Your task to perform on an android device: open app "Skype" (install if not already installed) Image 0: 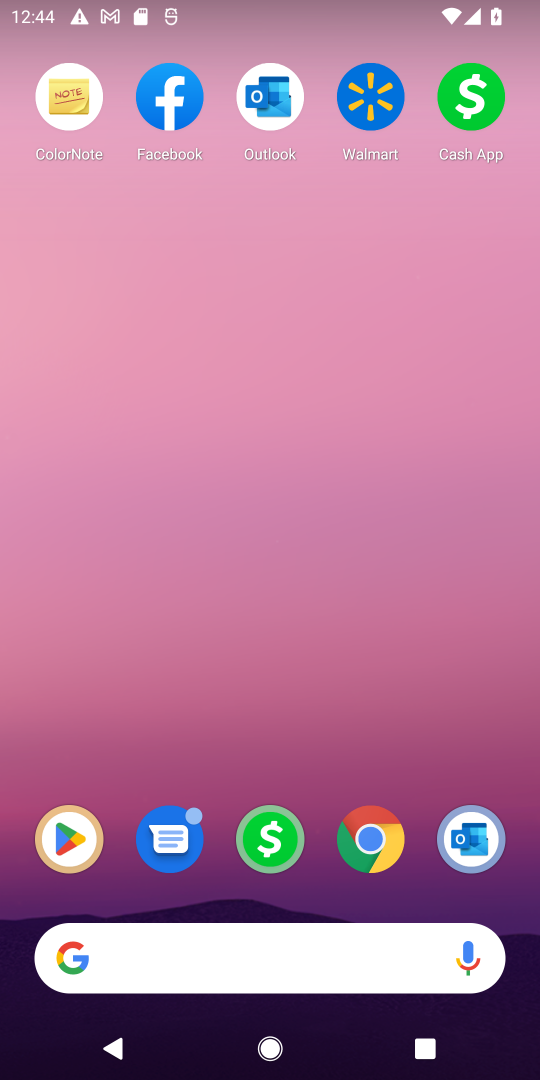
Step 0: click (71, 844)
Your task to perform on an android device: open app "Skype" (install if not already installed) Image 1: 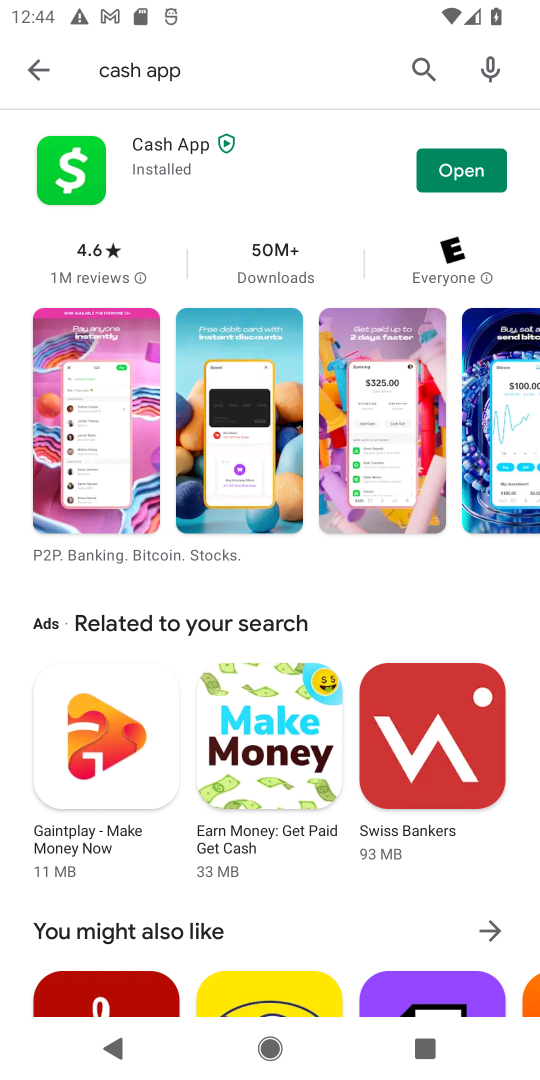
Step 1: click (422, 62)
Your task to perform on an android device: open app "Skype" (install if not already installed) Image 2: 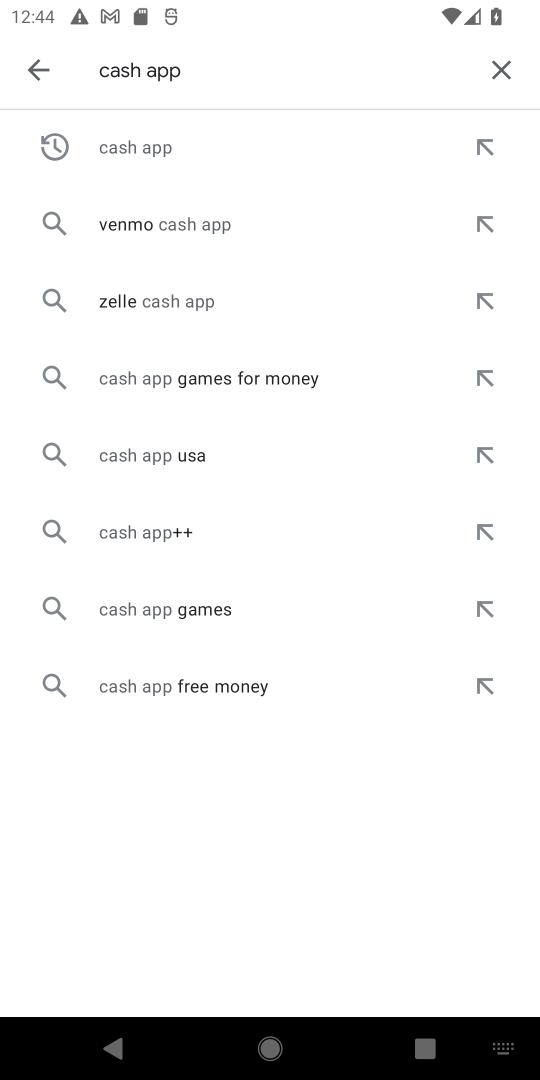
Step 2: click (518, 70)
Your task to perform on an android device: open app "Skype" (install if not already installed) Image 3: 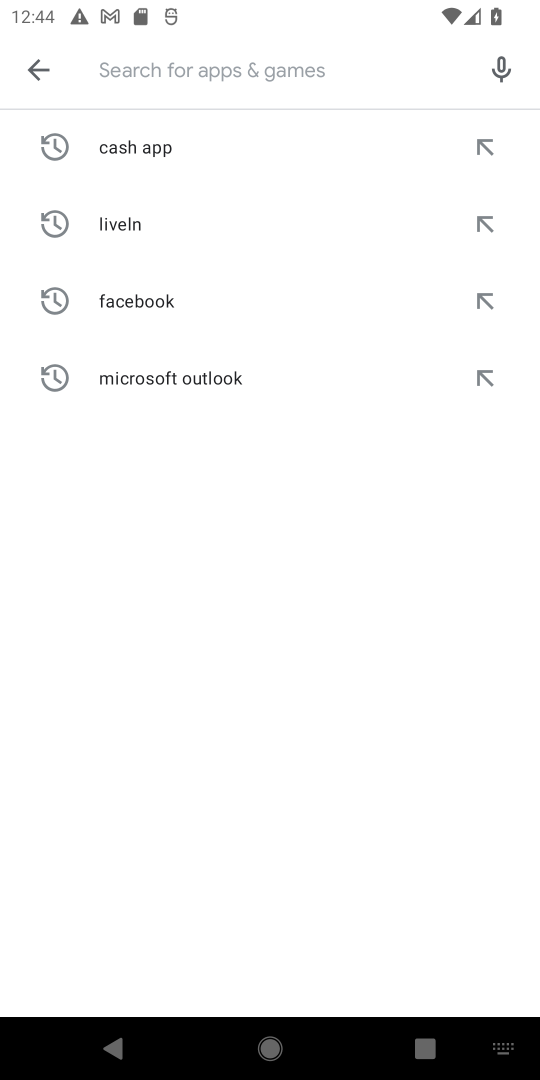
Step 3: type "skype"
Your task to perform on an android device: open app "Skype" (install if not already installed) Image 4: 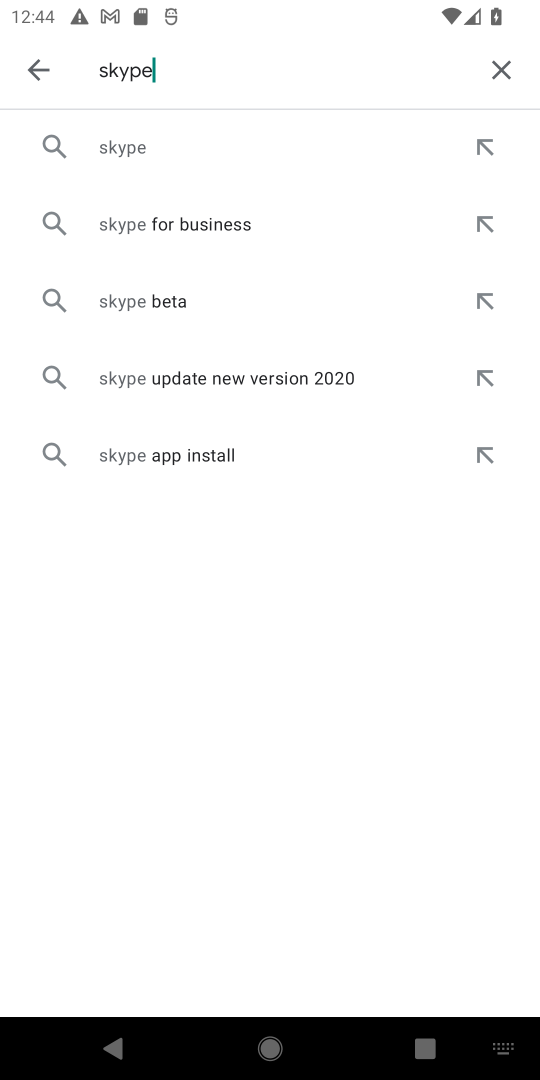
Step 4: click (142, 141)
Your task to perform on an android device: open app "Skype" (install if not already installed) Image 5: 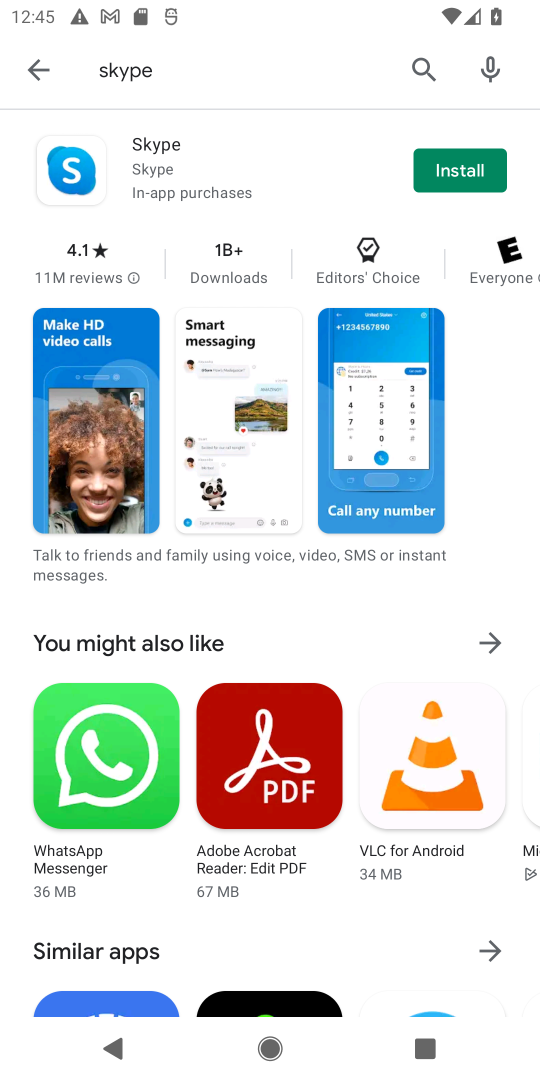
Step 5: click (470, 174)
Your task to perform on an android device: open app "Skype" (install if not already installed) Image 6: 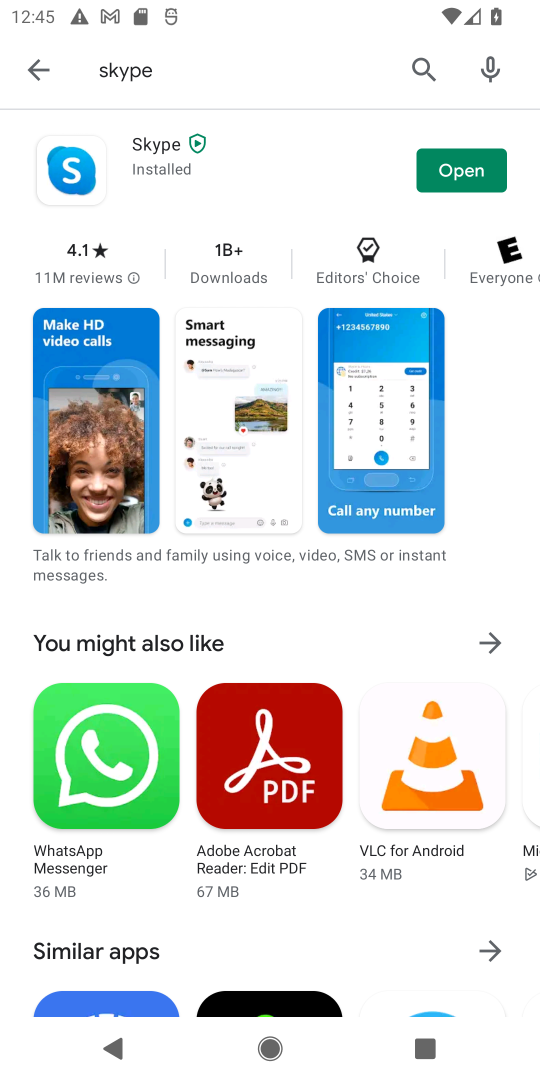
Step 6: click (454, 168)
Your task to perform on an android device: open app "Skype" (install if not already installed) Image 7: 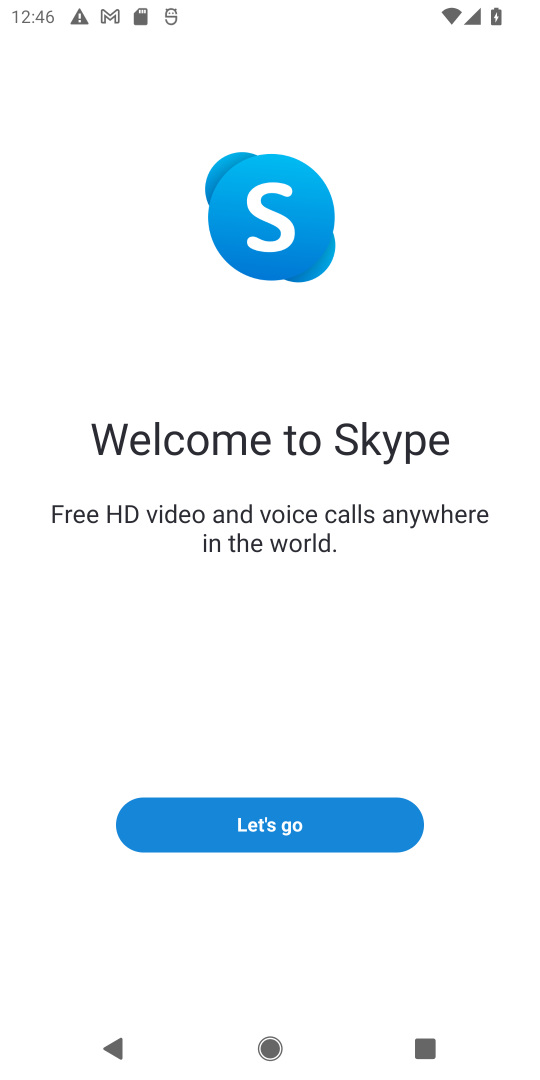
Step 7: task complete